Your task to perform on an android device: What's the weather today? Image 0: 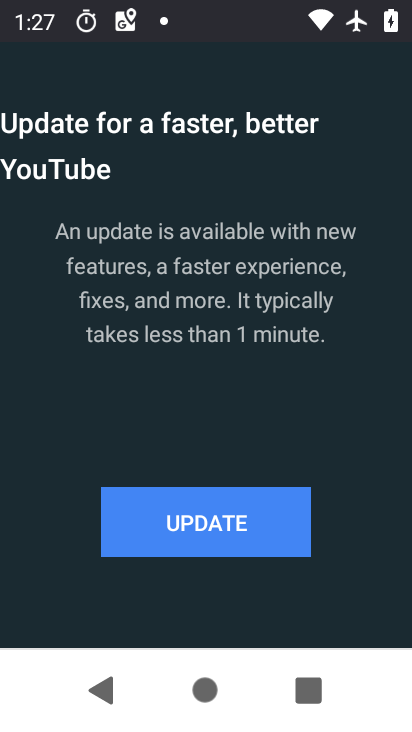
Step 0: press home button
Your task to perform on an android device: What's the weather today? Image 1: 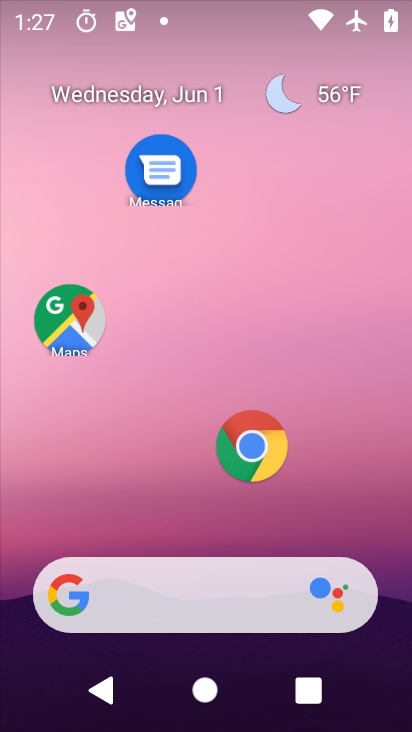
Step 1: drag from (222, 518) to (259, 158)
Your task to perform on an android device: What's the weather today? Image 2: 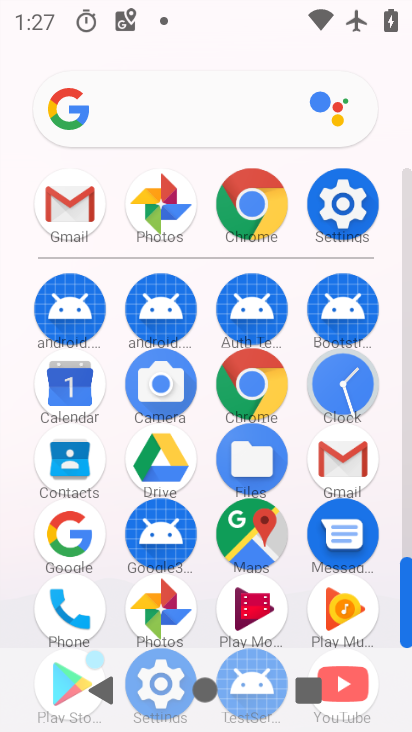
Step 2: click (56, 555)
Your task to perform on an android device: What's the weather today? Image 3: 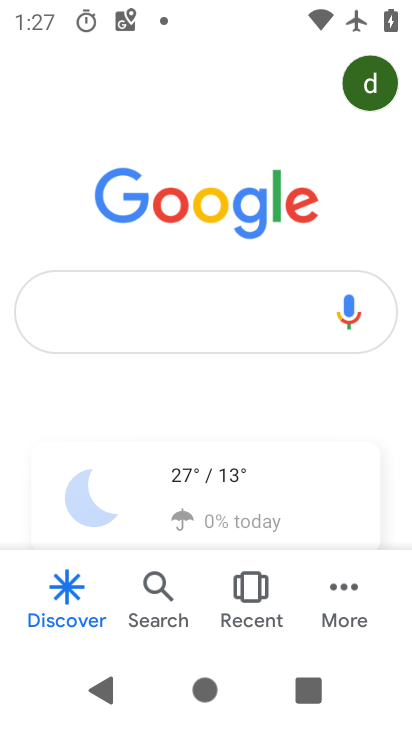
Step 3: click (260, 495)
Your task to perform on an android device: What's the weather today? Image 4: 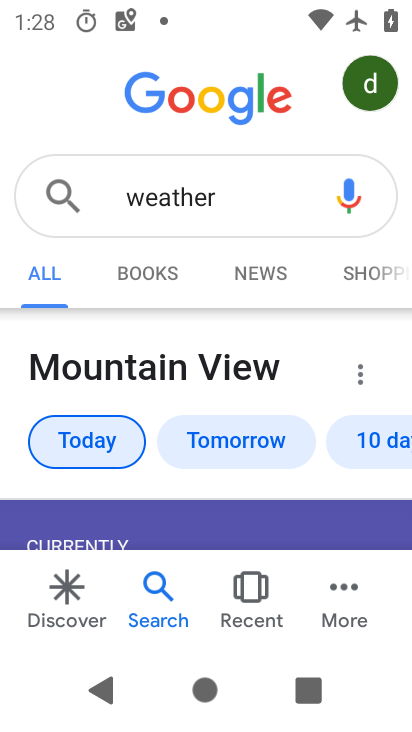
Step 4: task complete